Your task to perform on an android device: make emails show in primary in the gmail app Image 0: 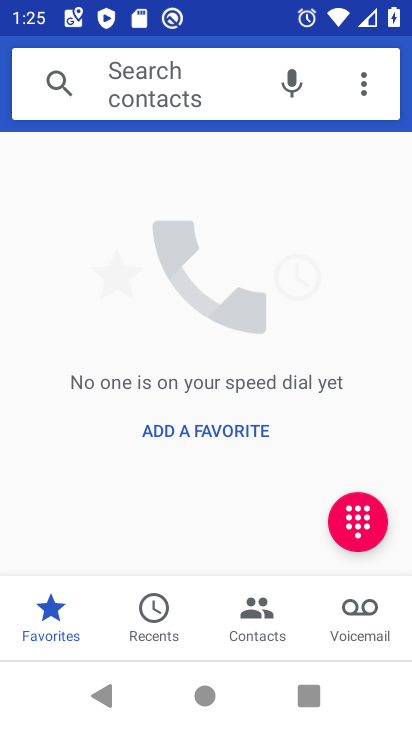
Step 0: press home button
Your task to perform on an android device: make emails show in primary in the gmail app Image 1: 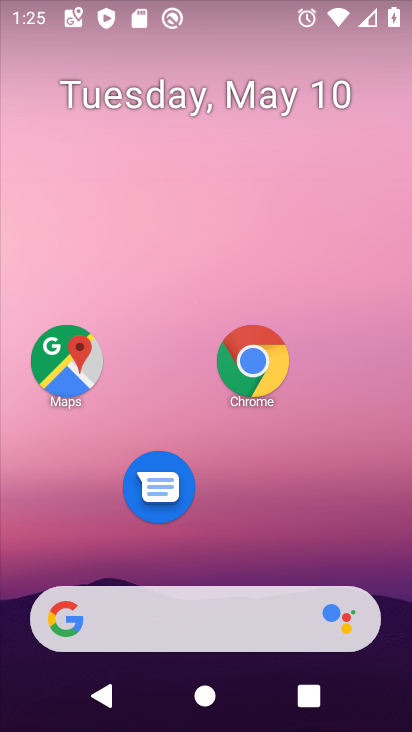
Step 1: drag from (278, 521) to (208, 147)
Your task to perform on an android device: make emails show in primary in the gmail app Image 2: 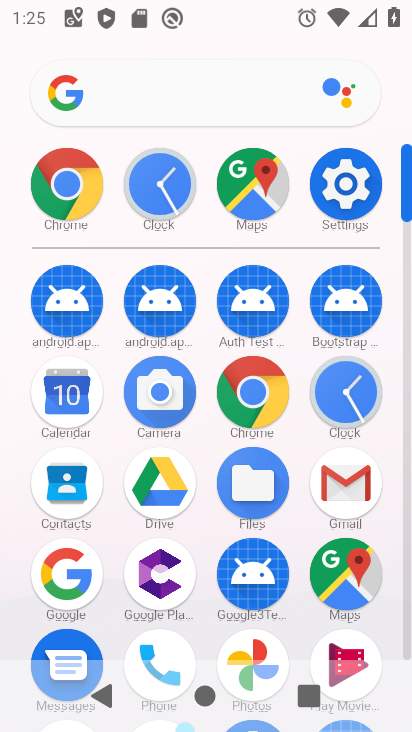
Step 2: click (353, 506)
Your task to perform on an android device: make emails show in primary in the gmail app Image 3: 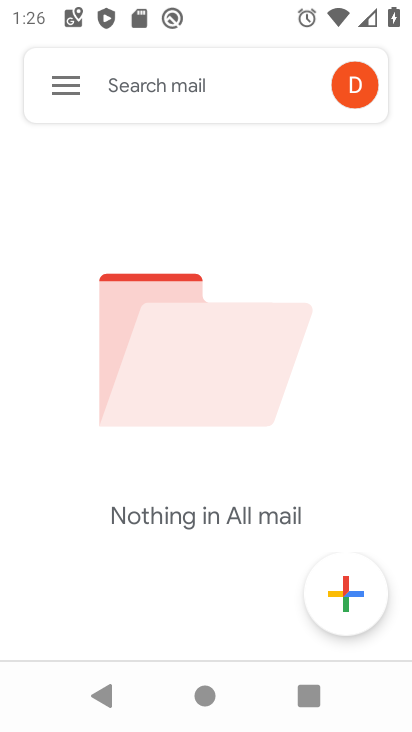
Step 3: click (59, 97)
Your task to perform on an android device: make emails show in primary in the gmail app Image 4: 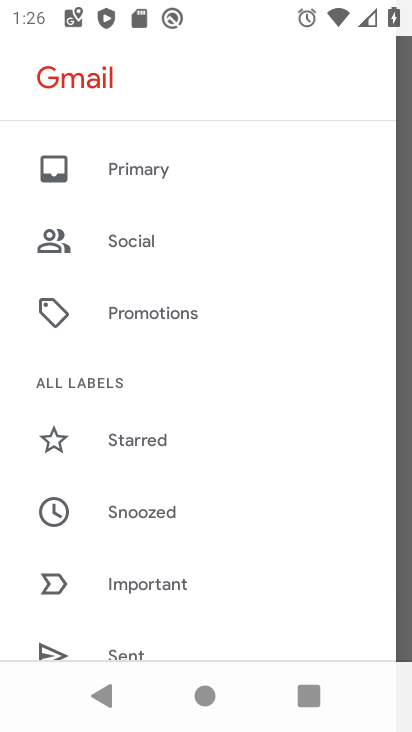
Step 4: drag from (104, 241) to (130, 315)
Your task to perform on an android device: make emails show in primary in the gmail app Image 5: 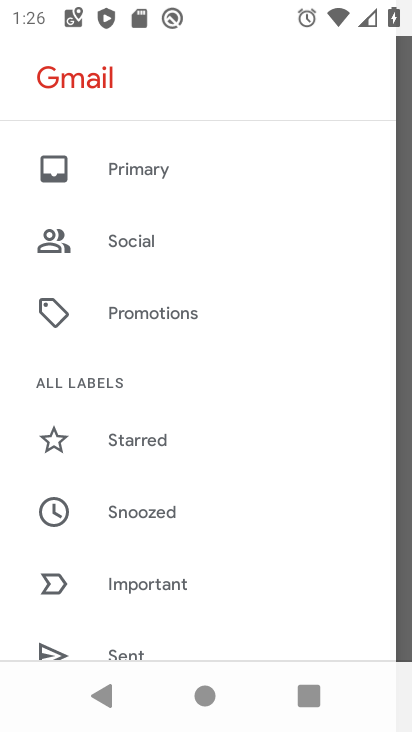
Step 5: click (116, 182)
Your task to perform on an android device: make emails show in primary in the gmail app Image 6: 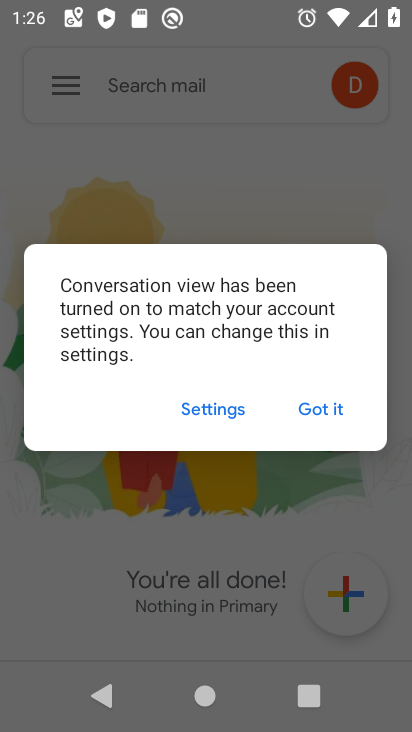
Step 6: task complete